Your task to perform on an android device: remove spam from my inbox in the gmail app Image 0: 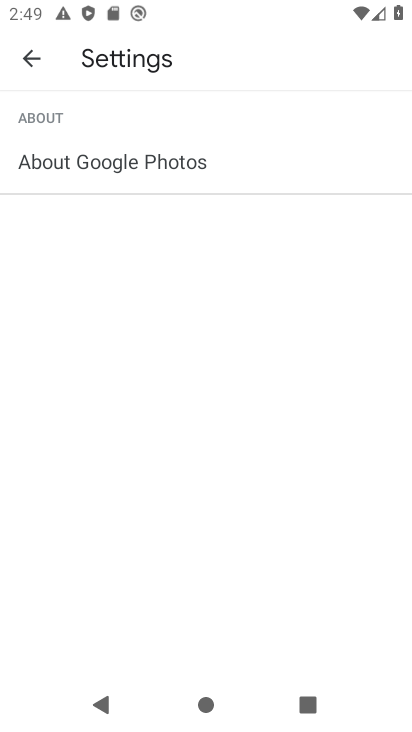
Step 0: press home button
Your task to perform on an android device: remove spam from my inbox in the gmail app Image 1: 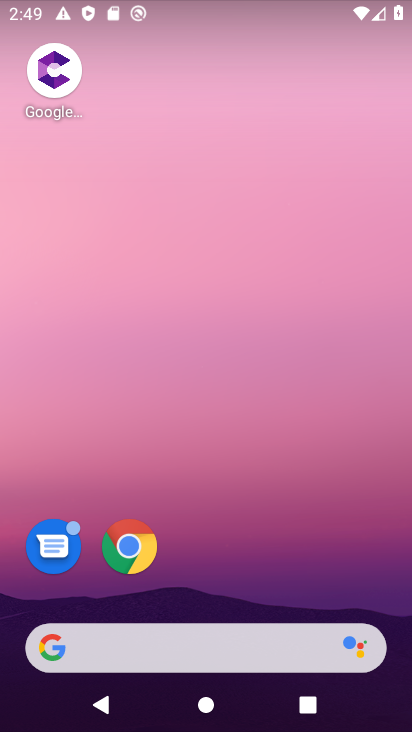
Step 1: drag from (314, 559) to (358, 106)
Your task to perform on an android device: remove spam from my inbox in the gmail app Image 2: 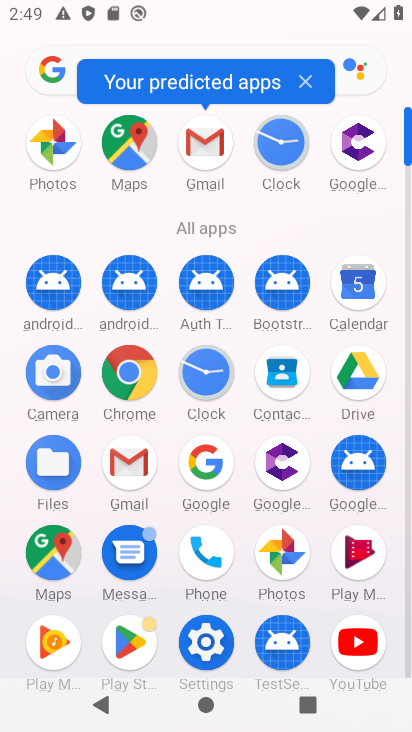
Step 2: click (129, 464)
Your task to perform on an android device: remove spam from my inbox in the gmail app Image 3: 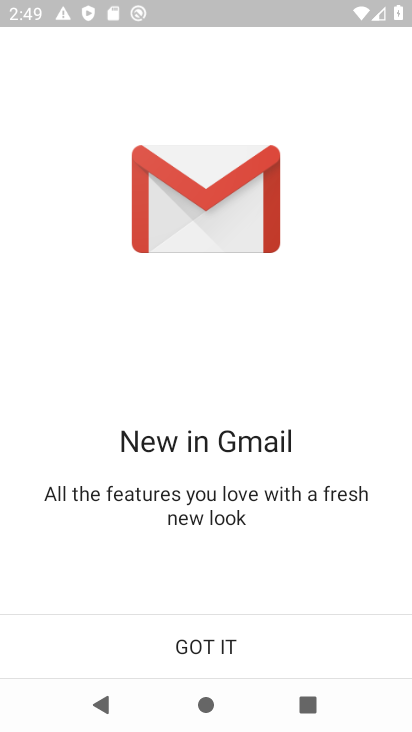
Step 3: click (263, 634)
Your task to perform on an android device: remove spam from my inbox in the gmail app Image 4: 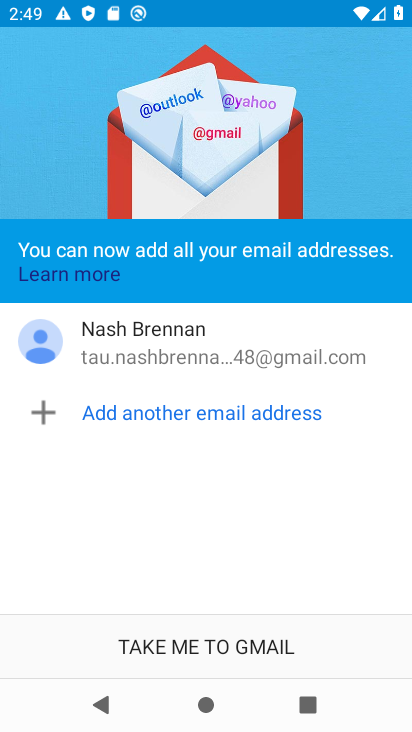
Step 4: click (257, 642)
Your task to perform on an android device: remove spam from my inbox in the gmail app Image 5: 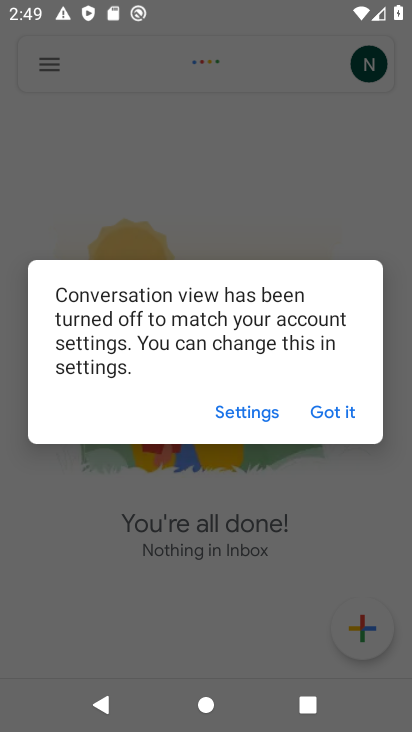
Step 5: click (336, 411)
Your task to perform on an android device: remove spam from my inbox in the gmail app Image 6: 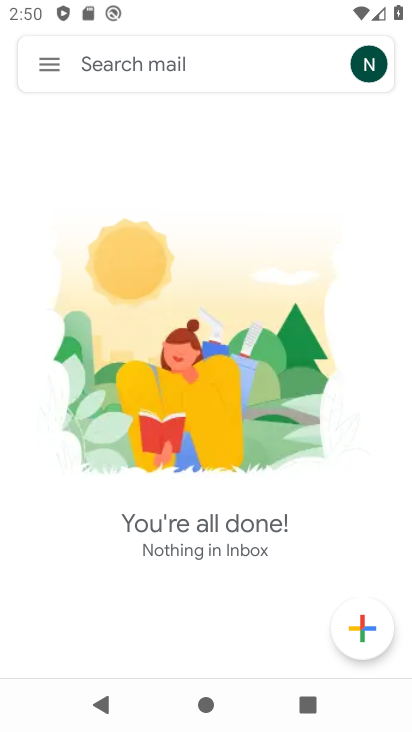
Step 6: click (47, 62)
Your task to perform on an android device: remove spam from my inbox in the gmail app Image 7: 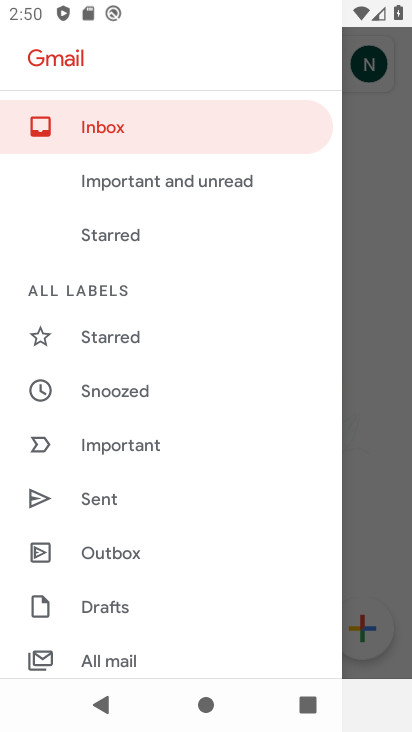
Step 7: drag from (250, 482) to (269, 372)
Your task to perform on an android device: remove spam from my inbox in the gmail app Image 8: 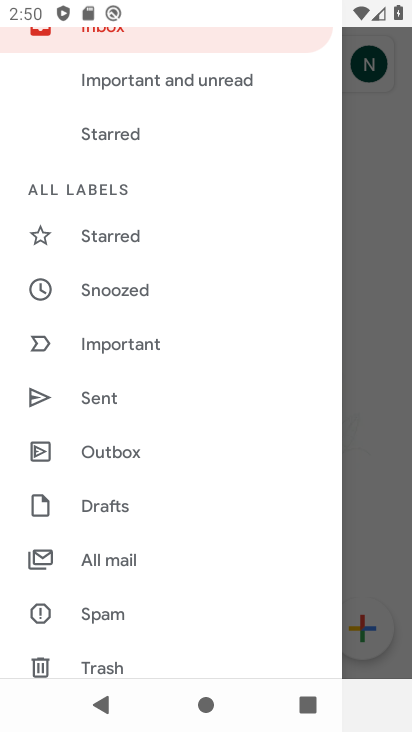
Step 8: drag from (235, 565) to (261, 390)
Your task to perform on an android device: remove spam from my inbox in the gmail app Image 9: 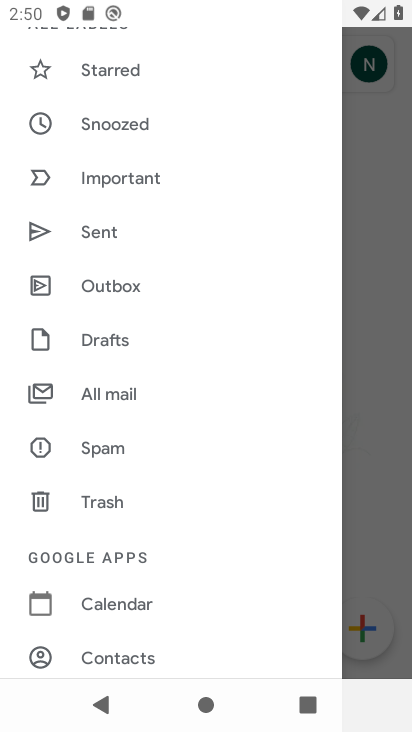
Step 9: drag from (241, 586) to (238, 394)
Your task to perform on an android device: remove spam from my inbox in the gmail app Image 10: 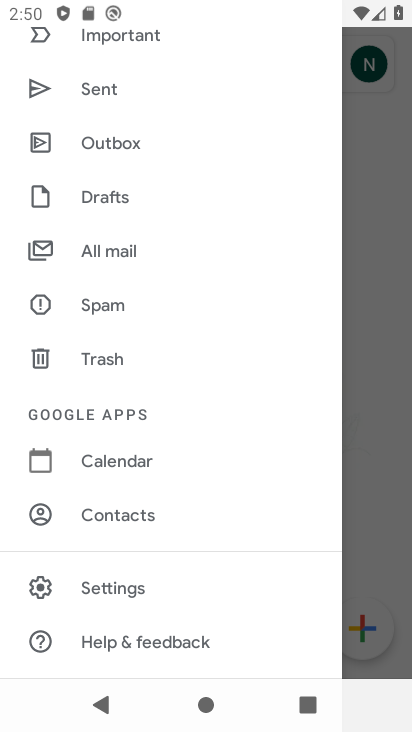
Step 10: drag from (210, 286) to (211, 448)
Your task to perform on an android device: remove spam from my inbox in the gmail app Image 11: 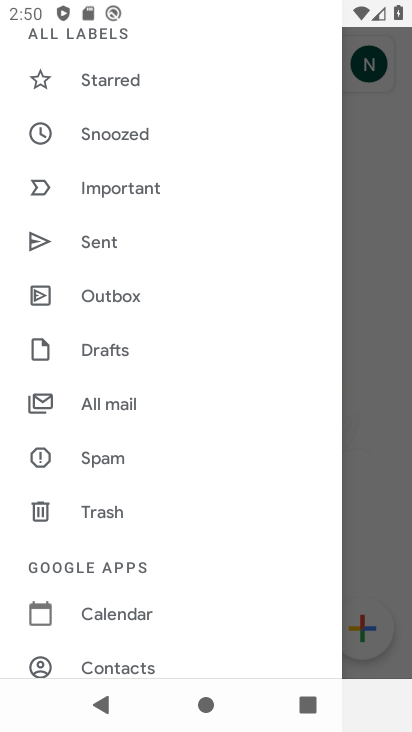
Step 11: click (124, 454)
Your task to perform on an android device: remove spam from my inbox in the gmail app Image 12: 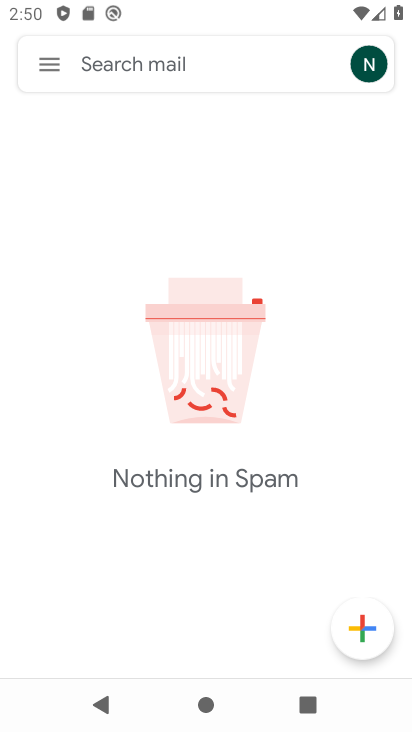
Step 12: task complete